Your task to perform on an android device: delete location history Image 0: 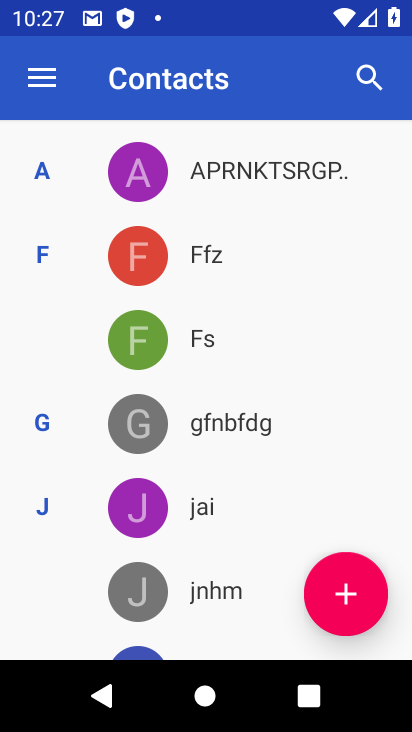
Step 0: press back button
Your task to perform on an android device: delete location history Image 1: 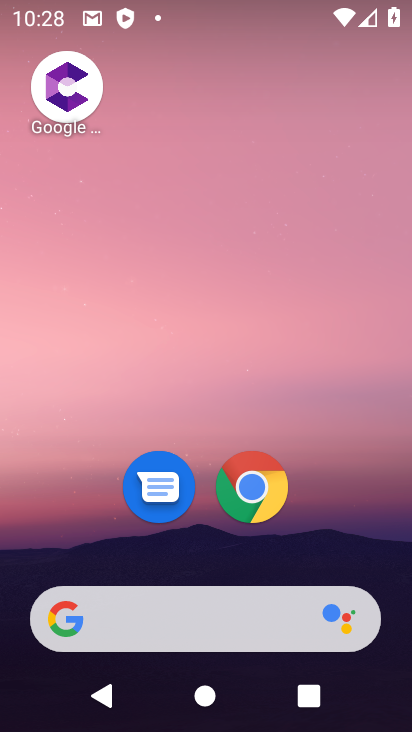
Step 1: drag from (176, 559) to (287, 31)
Your task to perform on an android device: delete location history Image 2: 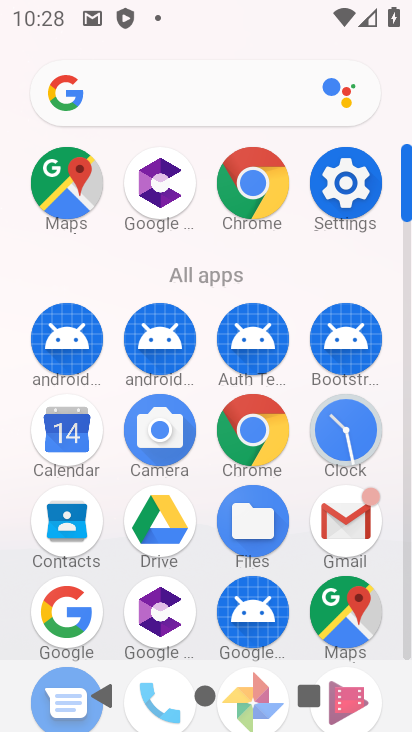
Step 2: click (84, 175)
Your task to perform on an android device: delete location history Image 3: 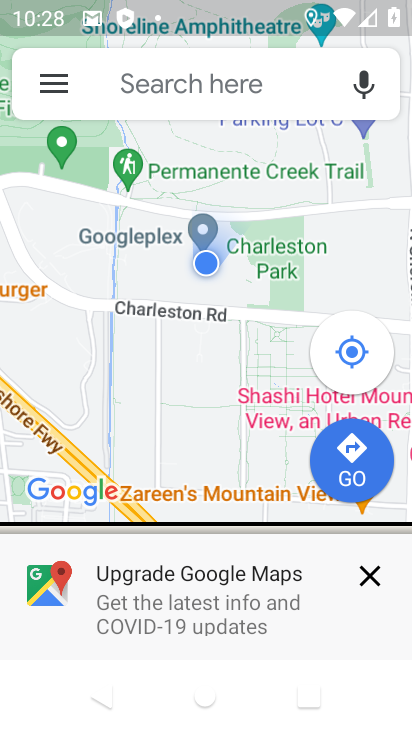
Step 3: click (54, 77)
Your task to perform on an android device: delete location history Image 4: 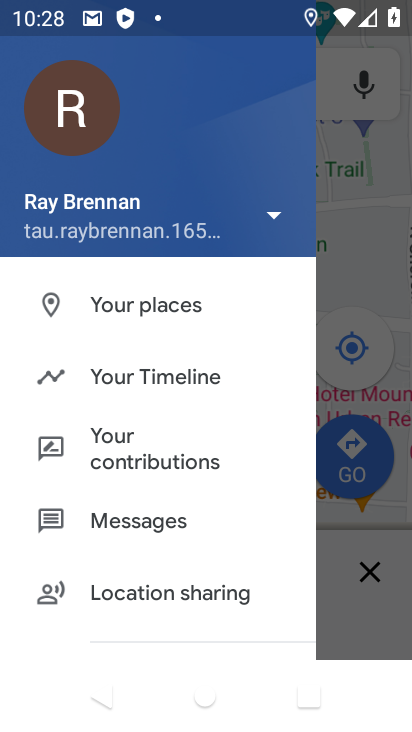
Step 4: click (169, 379)
Your task to perform on an android device: delete location history Image 5: 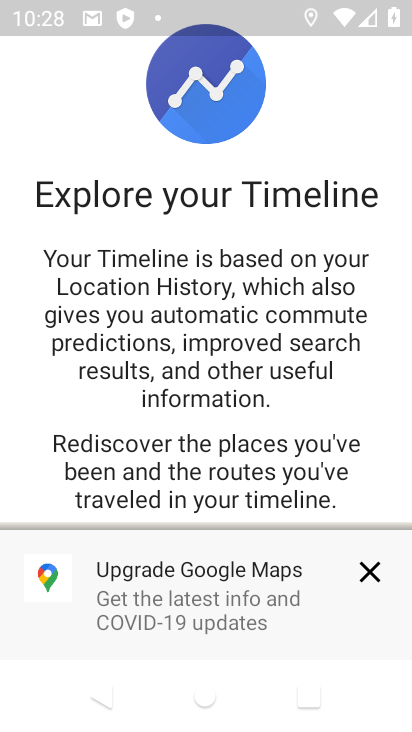
Step 5: click (361, 565)
Your task to perform on an android device: delete location history Image 6: 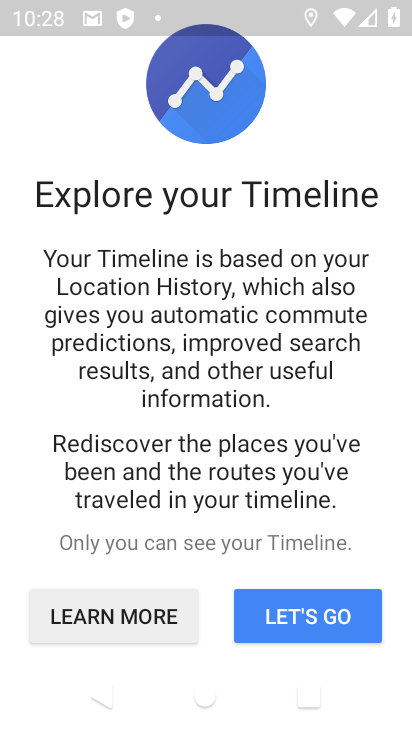
Step 6: click (314, 609)
Your task to perform on an android device: delete location history Image 7: 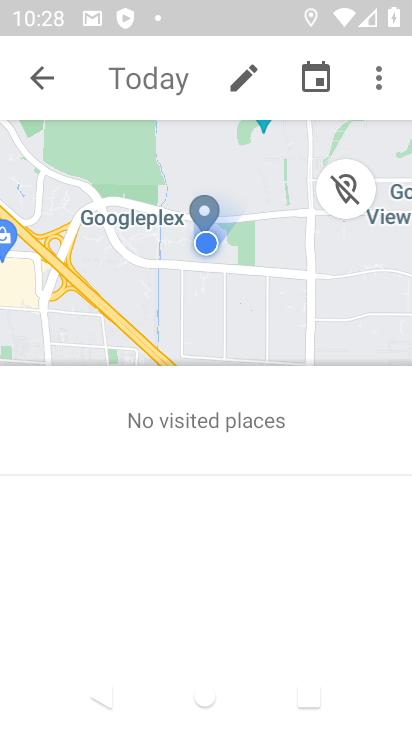
Step 7: click (385, 79)
Your task to perform on an android device: delete location history Image 8: 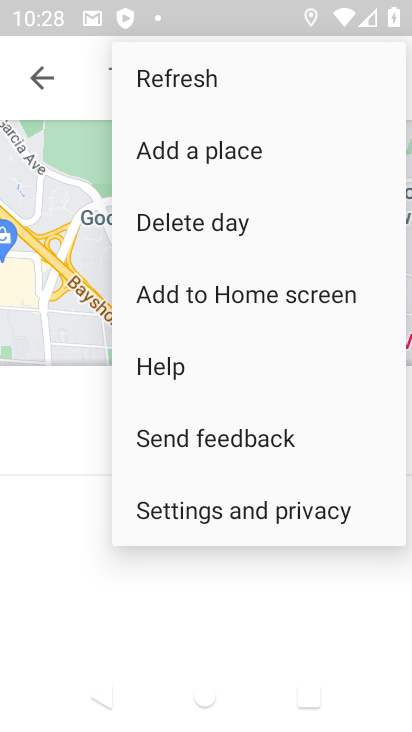
Step 8: click (257, 527)
Your task to perform on an android device: delete location history Image 9: 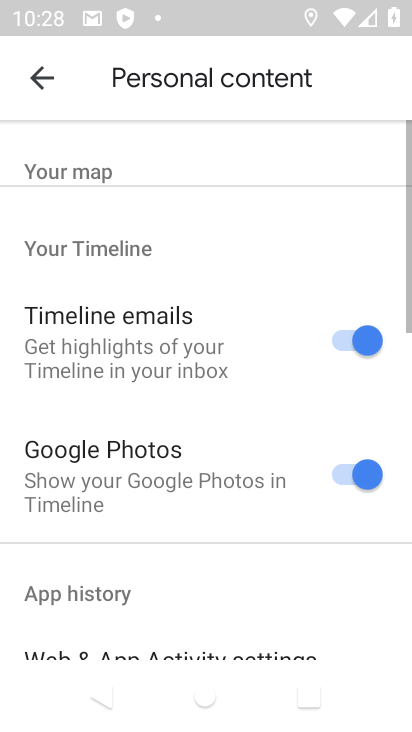
Step 9: drag from (233, 666) to (296, 198)
Your task to perform on an android device: delete location history Image 10: 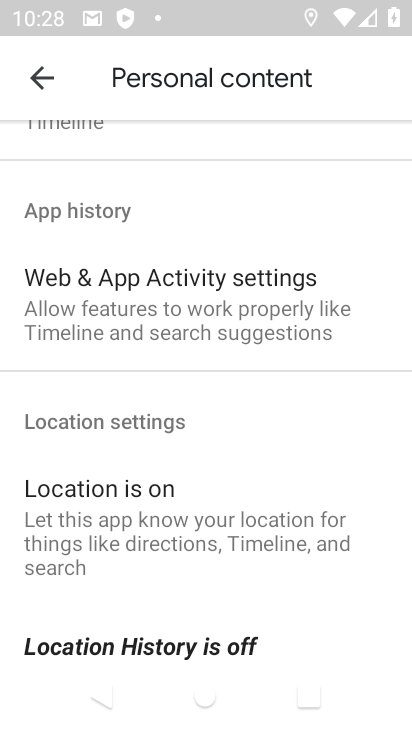
Step 10: drag from (193, 634) to (327, 100)
Your task to perform on an android device: delete location history Image 11: 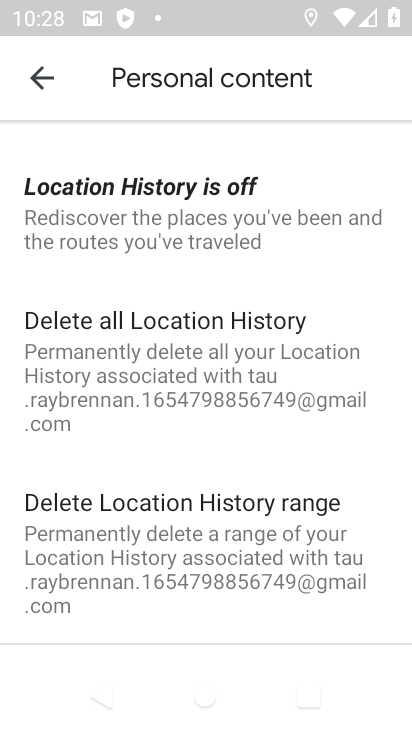
Step 11: click (209, 357)
Your task to perform on an android device: delete location history Image 12: 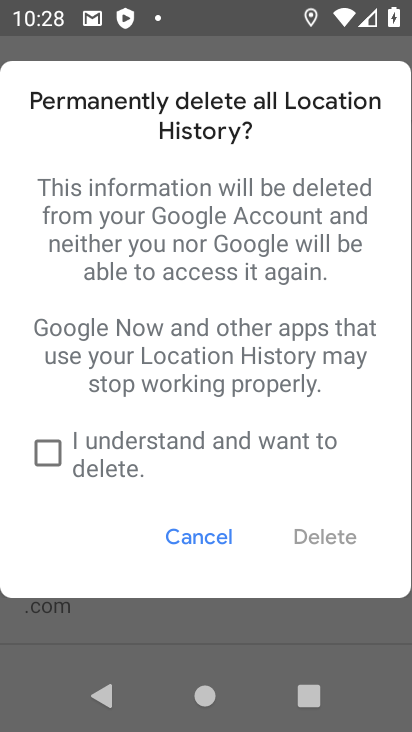
Step 12: click (29, 465)
Your task to perform on an android device: delete location history Image 13: 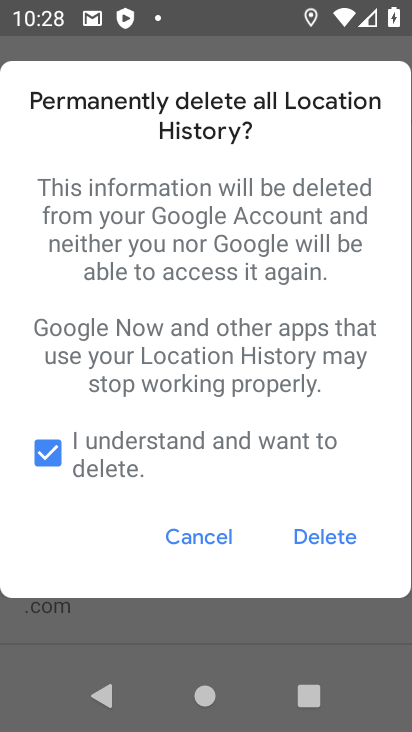
Step 13: click (319, 530)
Your task to perform on an android device: delete location history Image 14: 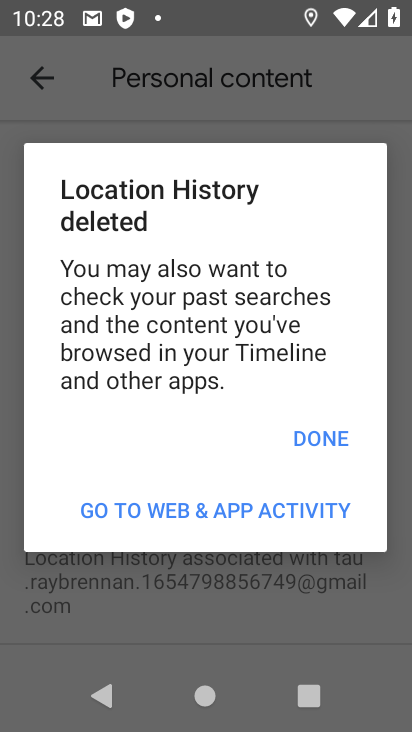
Step 14: click (308, 446)
Your task to perform on an android device: delete location history Image 15: 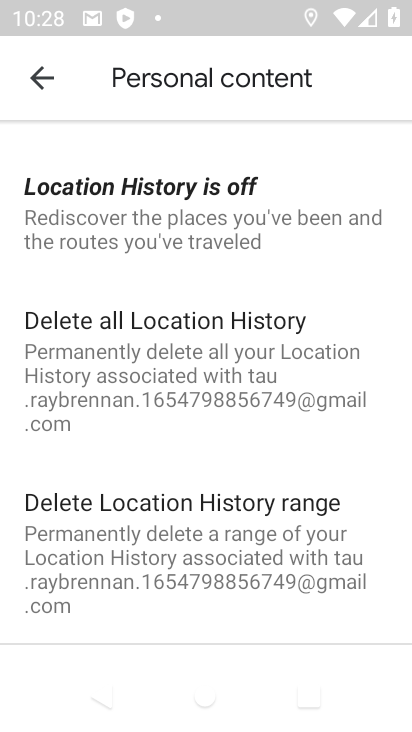
Step 15: task complete